Your task to perform on an android device: open chrome and create a bookmark for the current page Image 0: 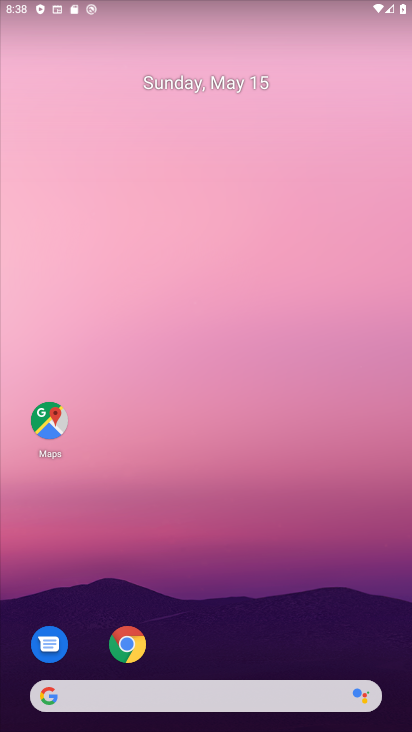
Step 0: click (133, 644)
Your task to perform on an android device: open chrome and create a bookmark for the current page Image 1: 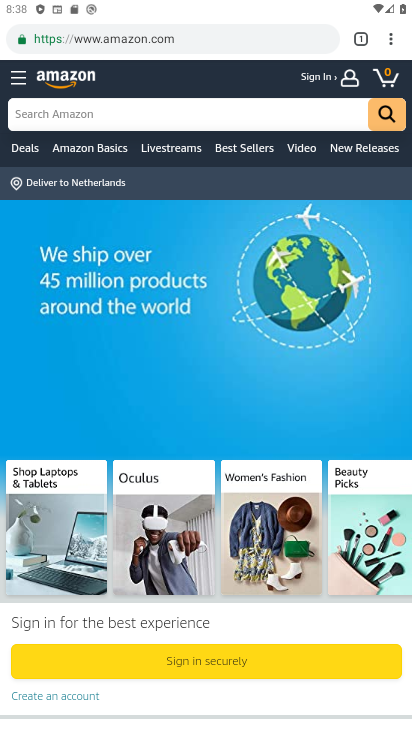
Step 1: task complete